Your task to perform on an android device: check android version Image 0: 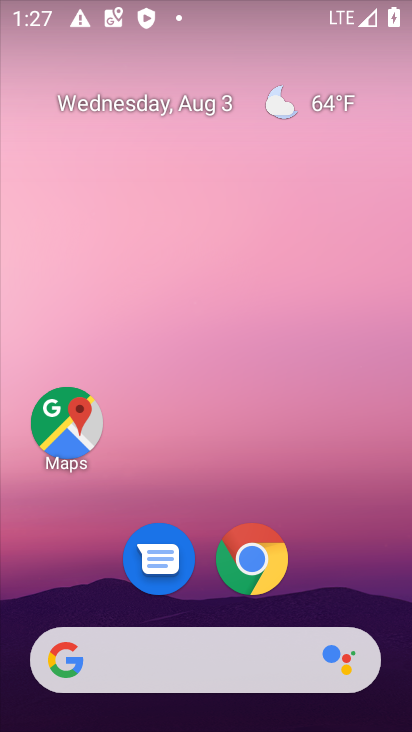
Step 0: drag from (213, 617) to (201, 231)
Your task to perform on an android device: check android version Image 1: 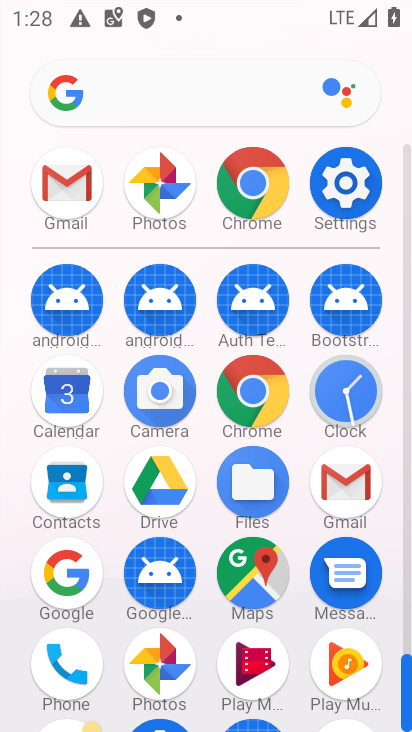
Step 1: click (344, 163)
Your task to perform on an android device: check android version Image 2: 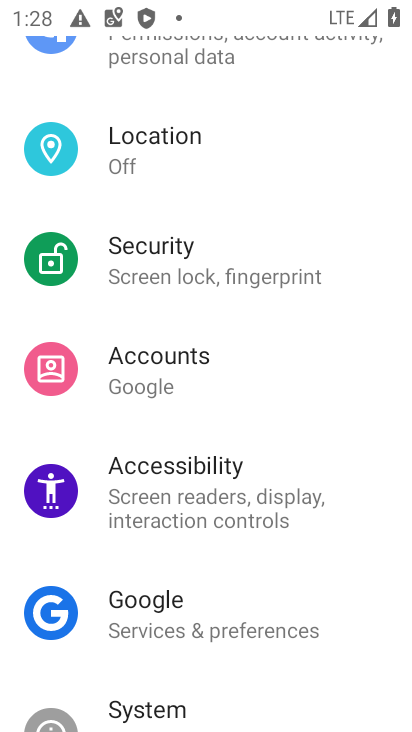
Step 2: drag from (164, 677) to (176, 360)
Your task to perform on an android device: check android version Image 3: 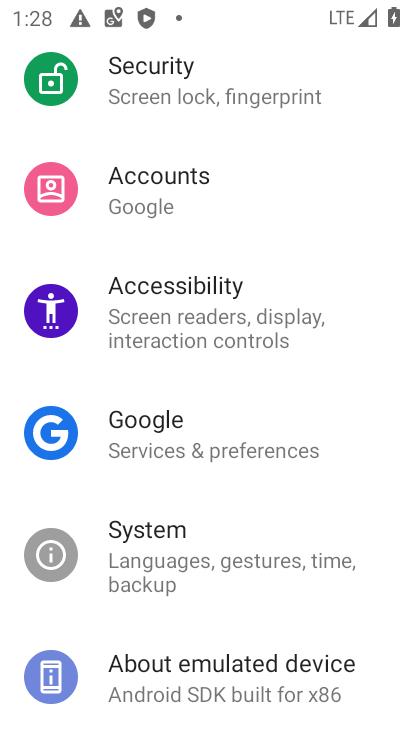
Step 3: drag from (180, 682) to (167, 294)
Your task to perform on an android device: check android version Image 4: 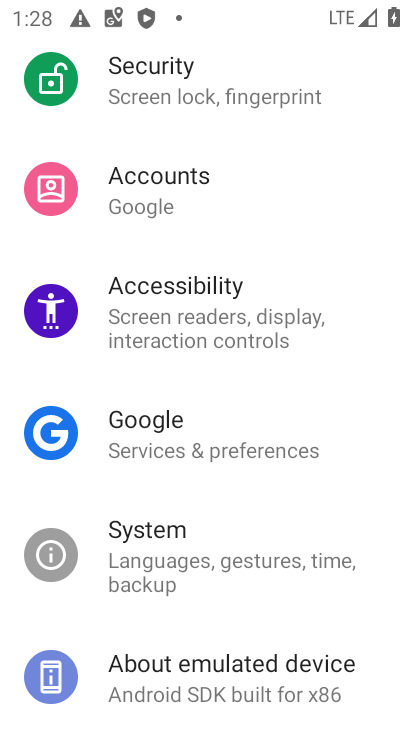
Step 4: click (185, 672)
Your task to perform on an android device: check android version Image 5: 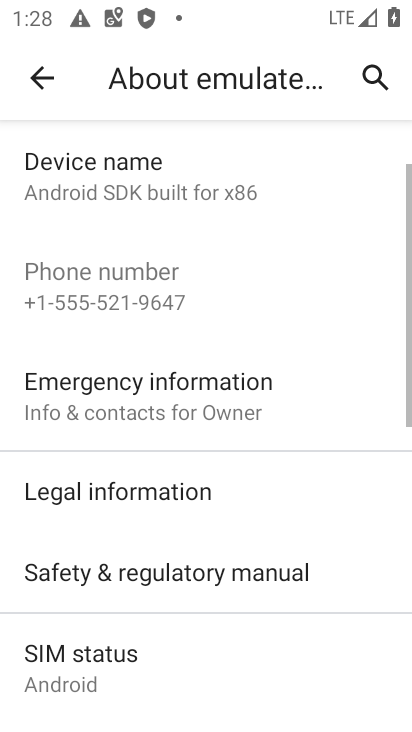
Step 5: drag from (114, 651) to (143, 289)
Your task to perform on an android device: check android version Image 6: 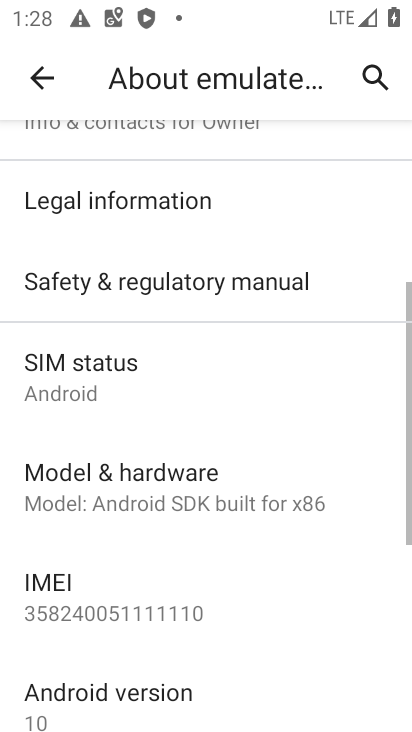
Step 6: click (90, 686)
Your task to perform on an android device: check android version Image 7: 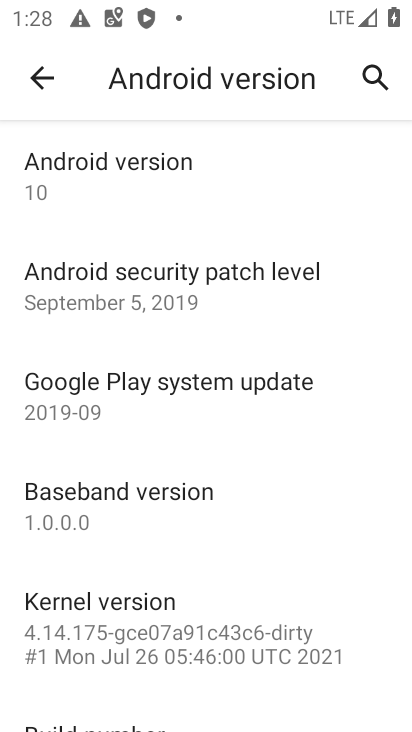
Step 7: task complete